Your task to perform on an android device: Open the Play Movies app and select the watchlist tab. Image 0: 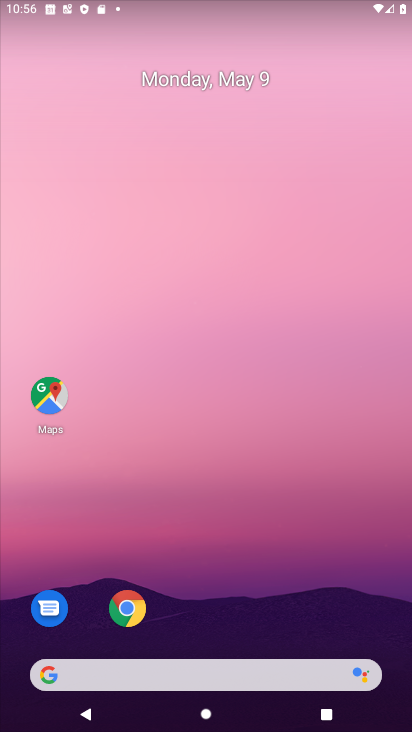
Step 0: drag from (230, 649) to (380, 23)
Your task to perform on an android device: Open the Play Movies app and select the watchlist tab. Image 1: 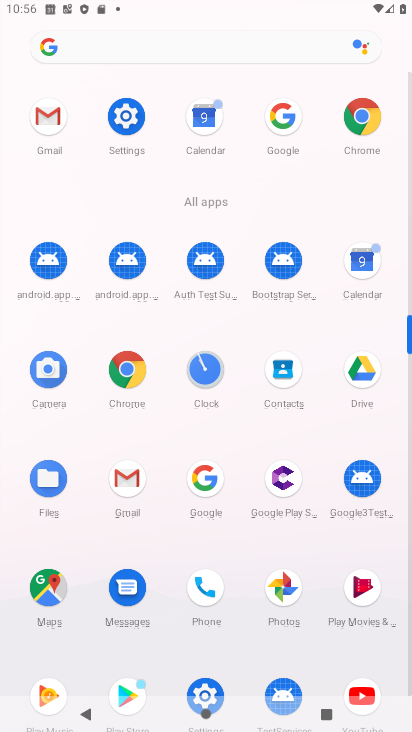
Step 1: drag from (177, 638) to (304, 338)
Your task to perform on an android device: Open the Play Movies app and select the watchlist tab. Image 2: 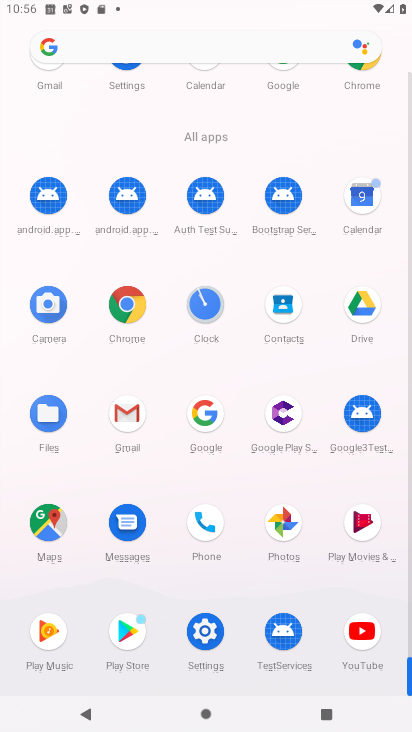
Step 2: drag from (184, 607) to (311, 214)
Your task to perform on an android device: Open the Play Movies app and select the watchlist tab. Image 3: 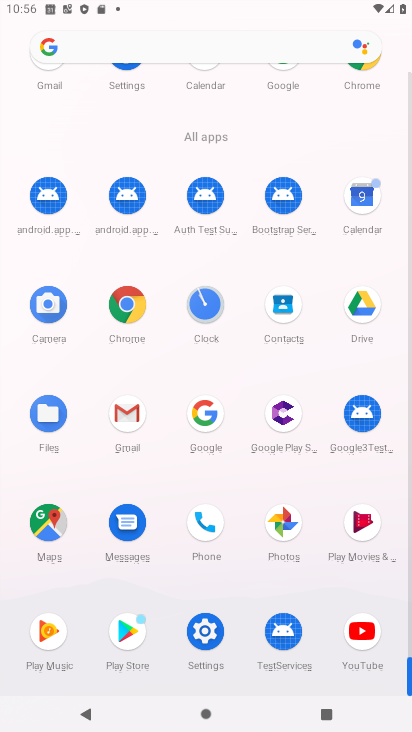
Step 3: drag from (235, 593) to (373, 140)
Your task to perform on an android device: Open the Play Movies app and select the watchlist tab. Image 4: 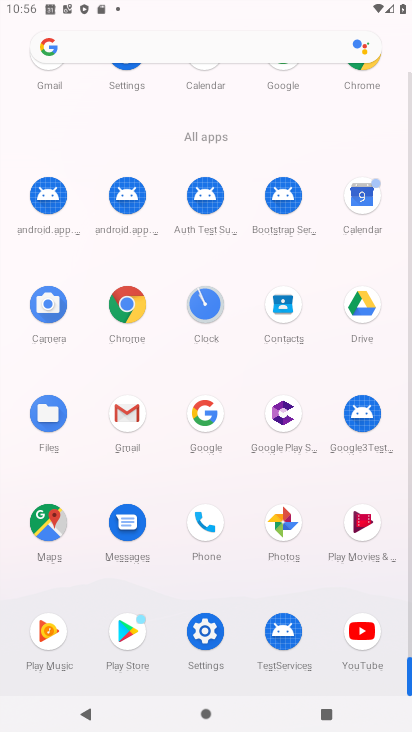
Step 4: click (362, 540)
Your task to perform on an android device: Open the Play Movies app and select the watchlist tab. Image 5: 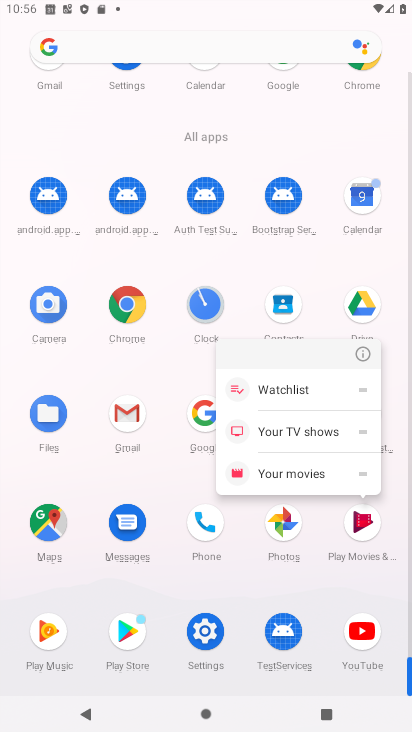
Step 5: click (365, 537)
Your task to perform on an android device: Open the Play Movies app and select the watchlist tab. Image 6: 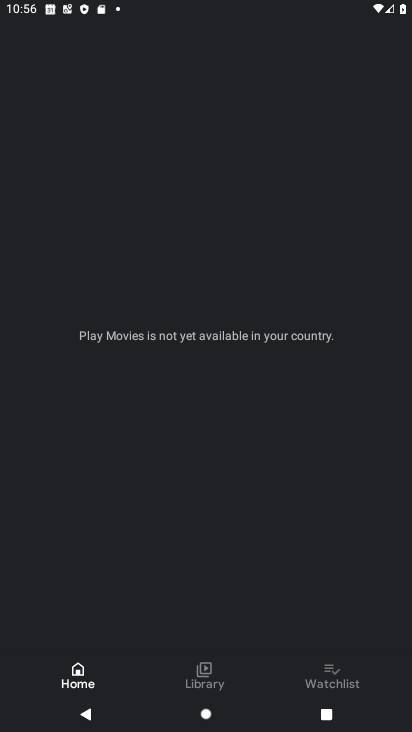
Step 6: click (339, 700)
Your task to perform on an android device: Open the Play Movies app and select the watchlist tab. Image 7: 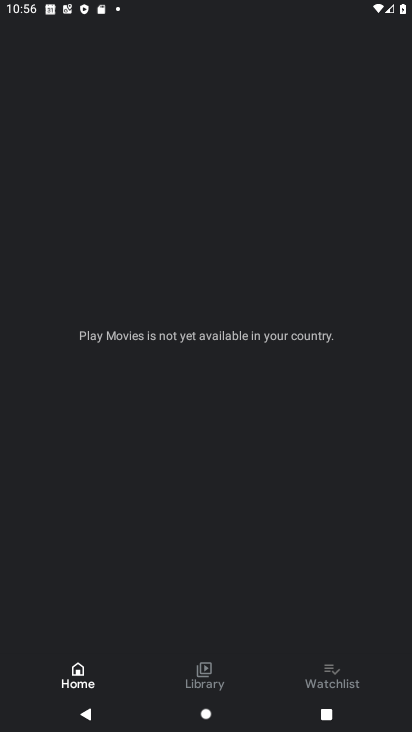
Step 7: click (328, 688)
Your task to perform on an android device: Open the Play Movies app and select the watchlist tab. Image 8: 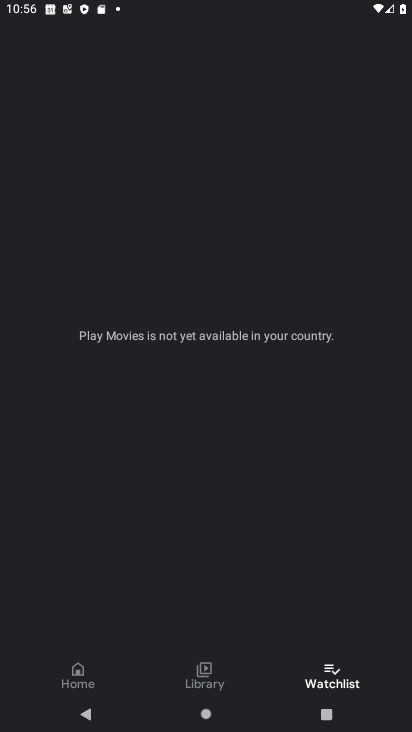
Step 8: click (324, 681)
Your task to perform on an android device: Open the Play Movies app and select the watchlist tab. Image 9: 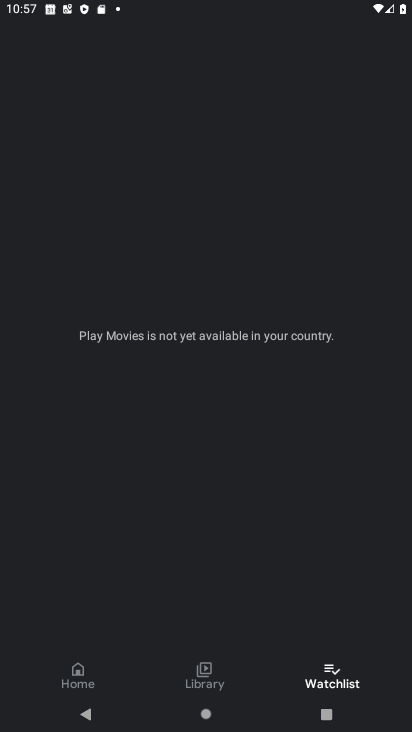
Step 9: click (323, 681)
Your task to perform on an android device: Open the Play Movies app and select the watchlist tab. Image 10: 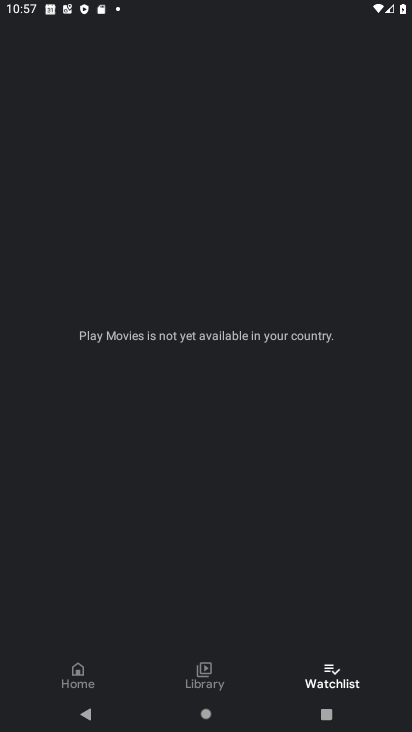
Step 10: task complete